Your task to perform on an android device: Open Android settings Image 0: 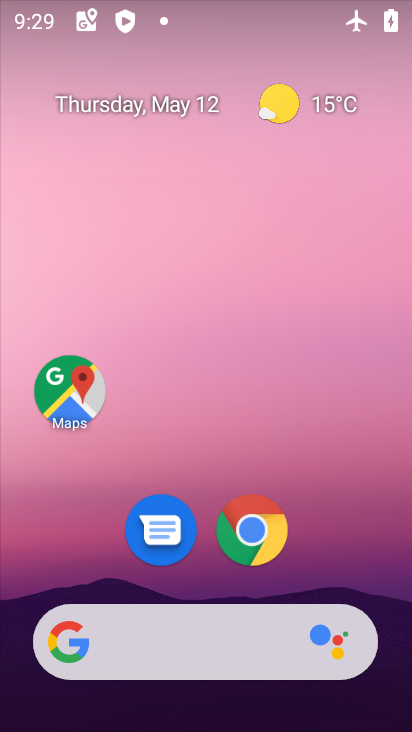
Step 0: drag from (151, 668) to (215, 2)
Your task to perform on an android device: Open Android settings Image 1: 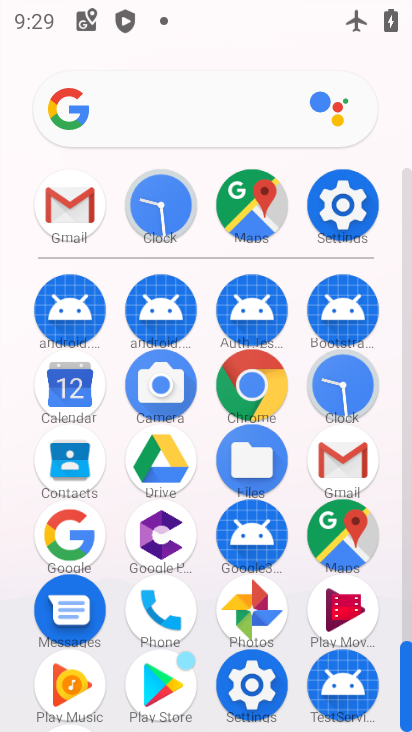
Step 1: drag from (278, 554) to (301, 16)
Your task to perform on an android device: Open Android settings Image 2: 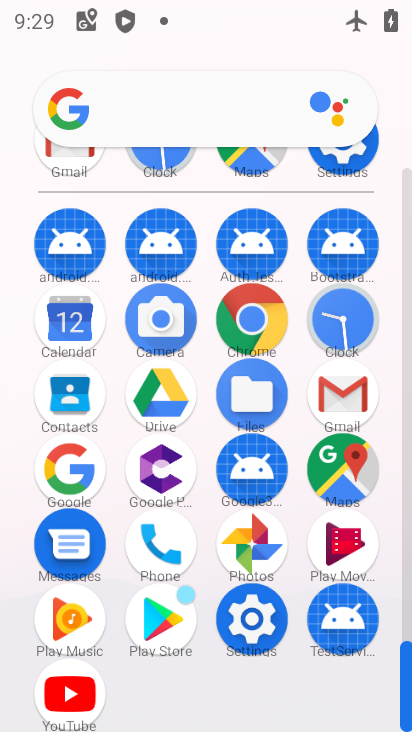
Step 2: click (255, 620)
Your task to perform on an android device: Open Android settings Image 3: 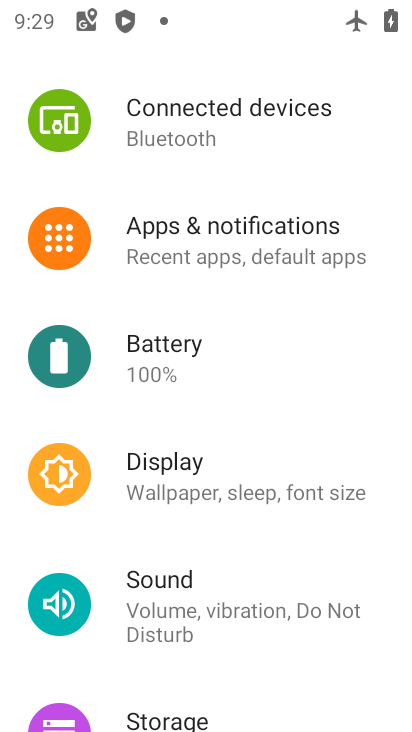
Step 3: drag from (326, 670) to (169, 27)
Your task to perform on an android device: Open Android settings Image 4: 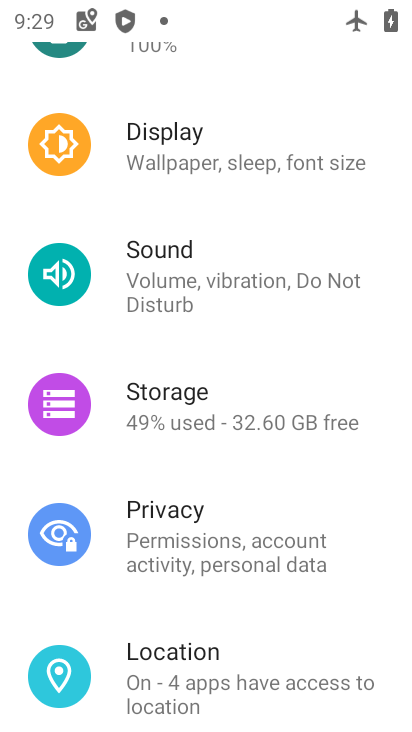
Step 4: drag from (202, 632) to (90, 72)
Your task to perform on an android device: Open Android settings Image 5: 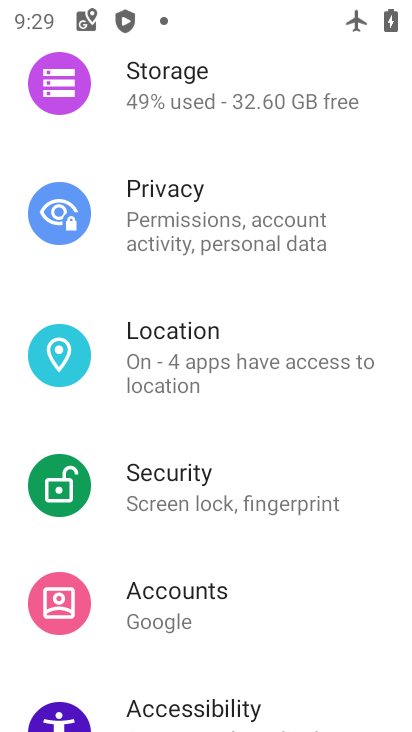
Step 5: drag from (248, 657) to (194, 50)
Your task to perform on an android device: Open Android settings Image 6: 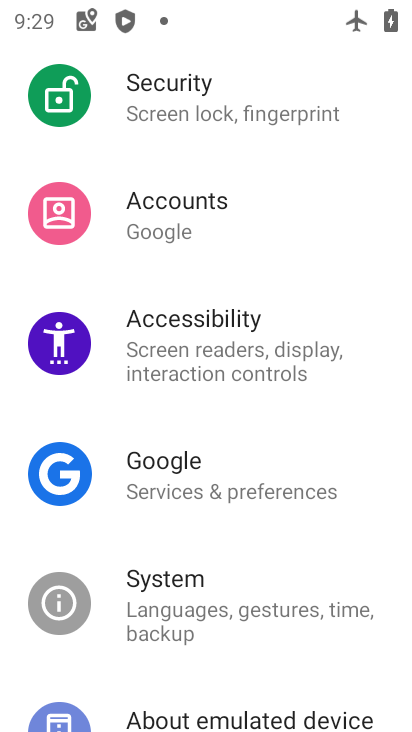
Step 6: drag from (263, 618) to (134, 117)
Your task to perform on an android device: Open Android settings Image 7: 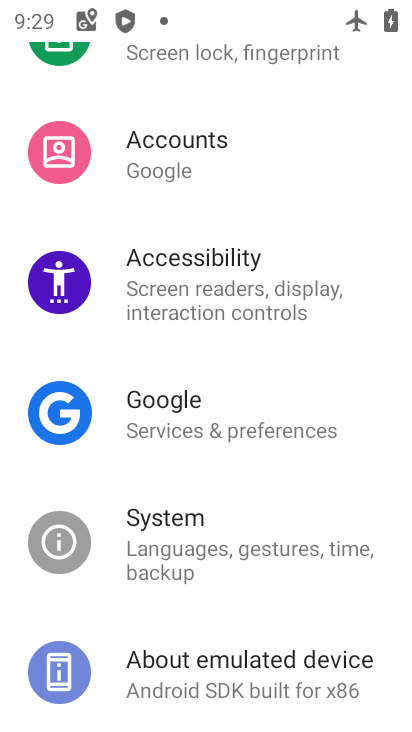
Step 7: click (240, 677)
Your task to perform on an android device: Open Android settings Image 8: 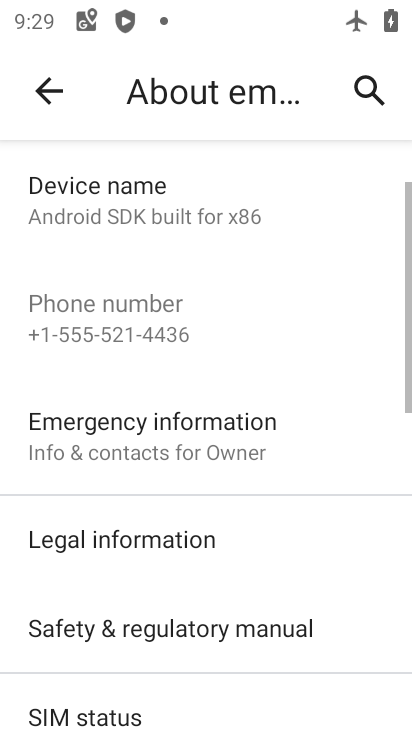
Step 8: task complete